Your task to perform on an android device: Open Wikipedia Image 0: 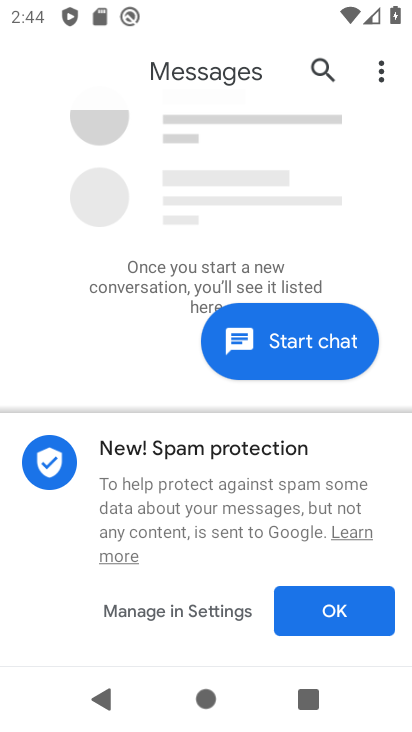
Step 0: press home button
Your task to perform on an android device: Open Wikipedia Image 1: 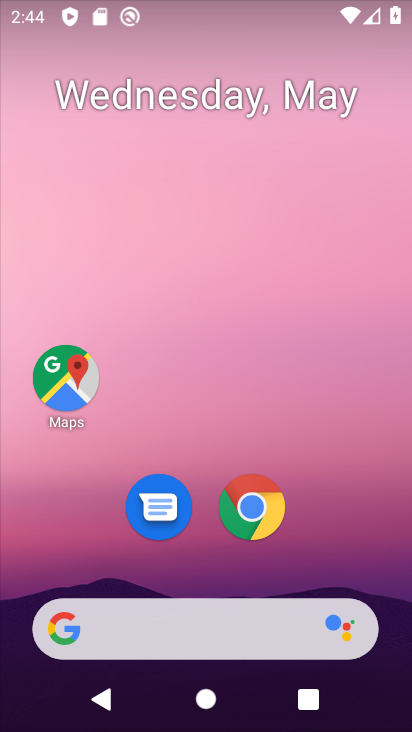
Step 1: click (251, 501)
Your task to perform on an android device: Open Wikipedia Image 2: 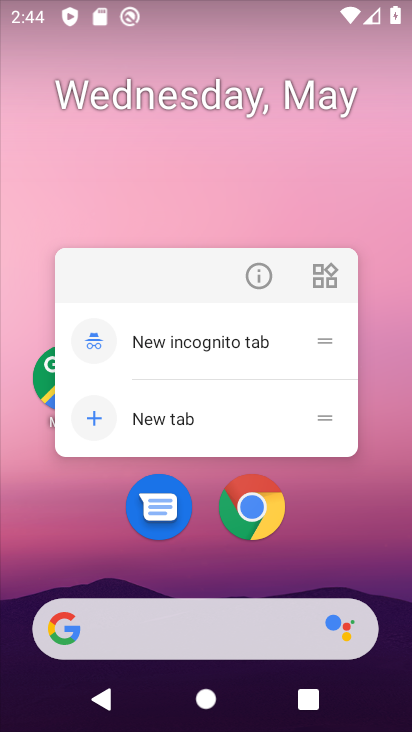
Step 2: click (249, 511)
Your task to perform on an android device: Open Wikipedia Image 3: 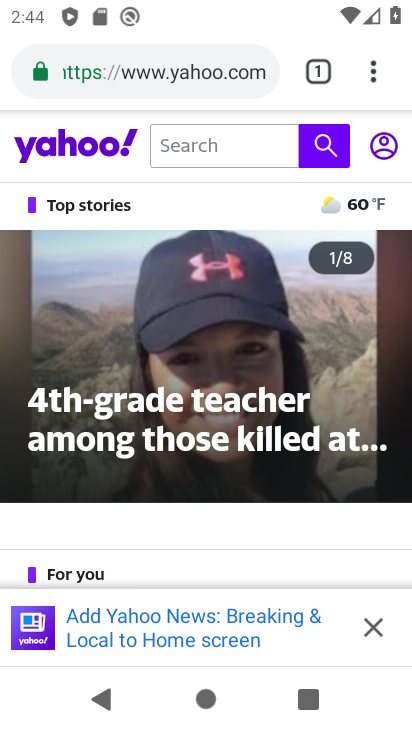
Step 3: press back button
Your task to perform on an android device: Open Wikipedia Image 4: 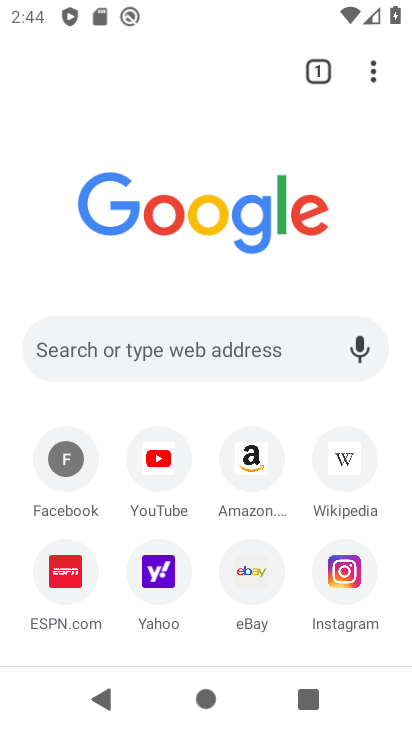
Step 4: click (332, 461)
Your task to perform on an android device: Open Wikipedia Image 5: 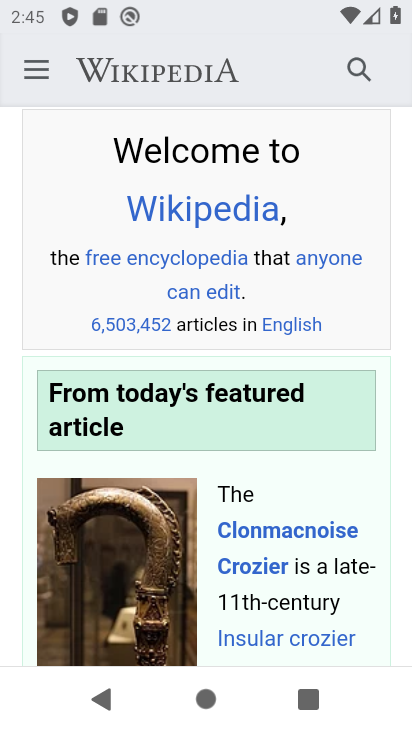
Step 5: task complete